Your task to perform on an android device: turn pop-ups off in chrome Image 0: 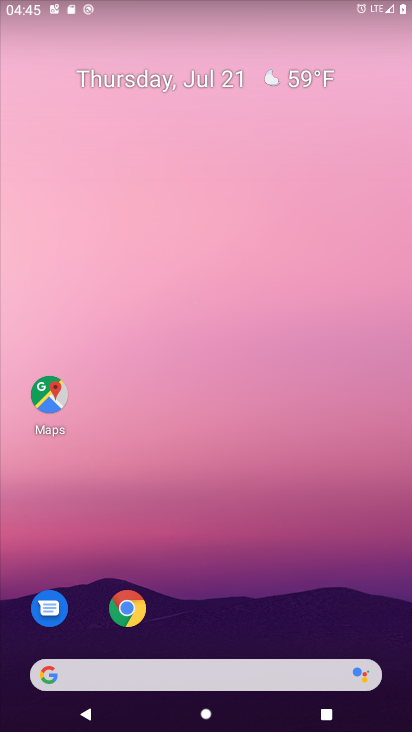
Step 0: drag from (318, 637) to (272, 88)
Your task to perform on an android device: turn pop-ups off in chrome Image 1: 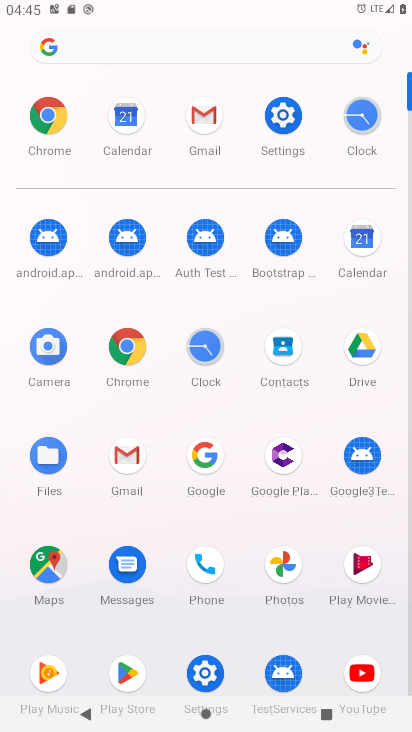
Step 1: click (135, 342)
Your task to perform on an android device: turn pop-ups off in chrome Image 2: 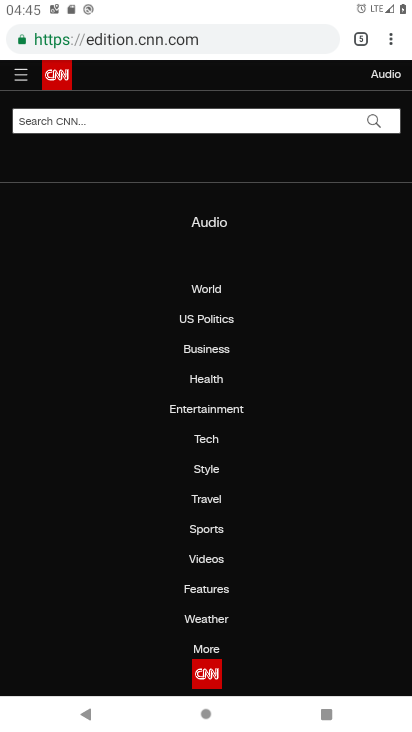
Step 2: click (391, 32)
Your task to perform on an android device: turn pop-ups off in chrome Image 3: 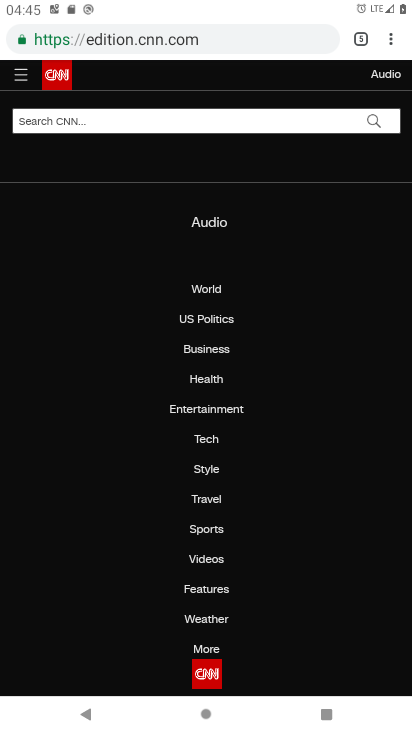
Step 3: drag from (391, 28) to (282, 469)
Your task to perform on an android device: turn pop-ups off in chrome Image 4: 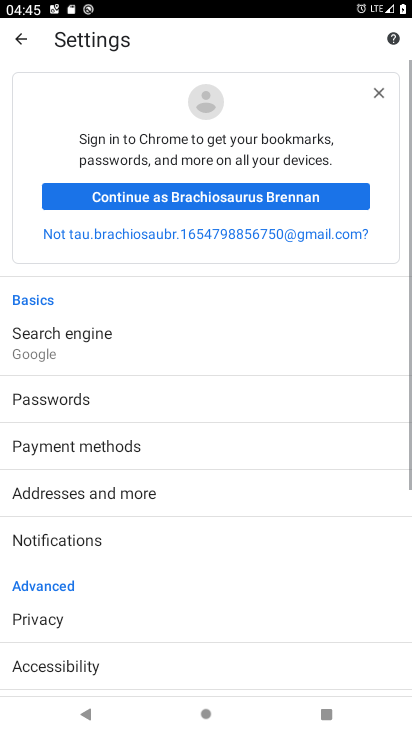
Step 4: drag from (150, 629) to (244, 290)
Your task to perform on an android device: turn pop-ups off in chrome Image 5: 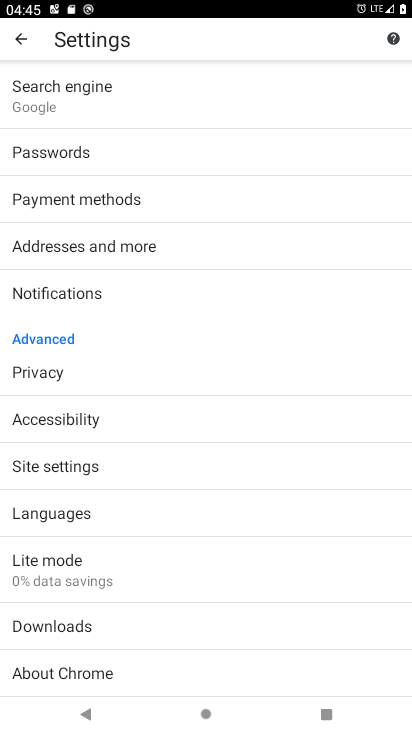
Step 5: click (105, 466)
Your task to perform on an android device: turn pop-ups off in chrome Image 6: 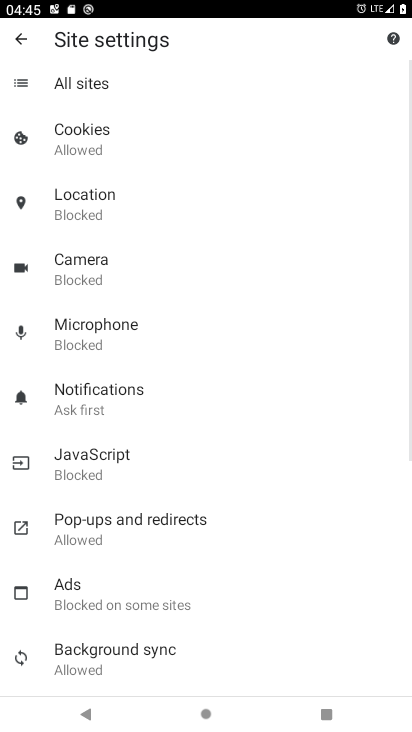
Step 6: click (161, 536)
Your task to perform on an android device: turn pop-ups off in chrome Image 7: 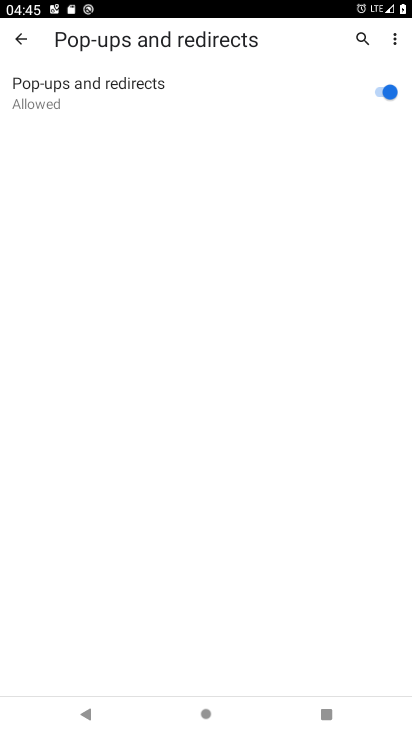
Step 7: click (395, 93)
Your task to perform on an android device: turn pop-ups off in chrome Image 8: 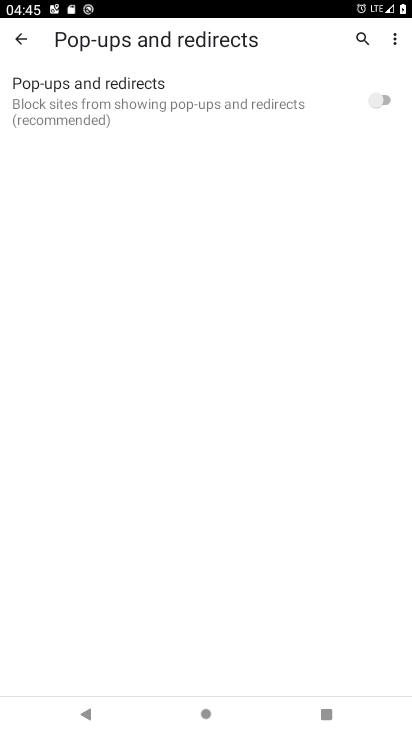
Step 8: task complete